Your task to perform on an android device: Open sound settings Image 0: 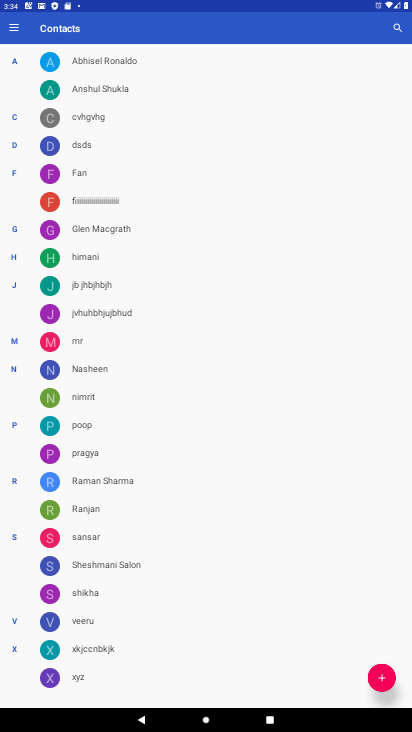
Step 0: press home button
Your task to perform on an android device: Open sound settings Image 1: 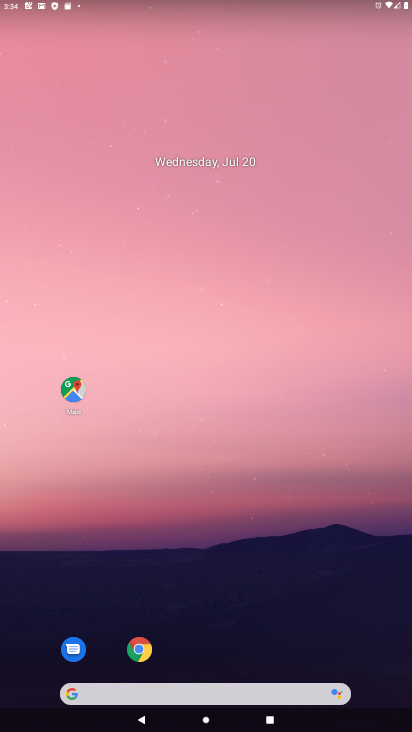
Step 1: drag from (250, 694) to (275, 88)
Your task to perform on an android device: Open sound settings Image 2: 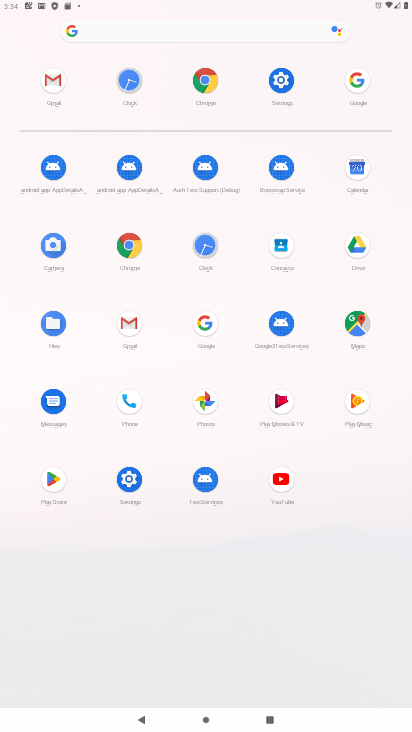
Step 2: click (282, 79)
Your task to perform on an android device: Open sound settings Image 3: 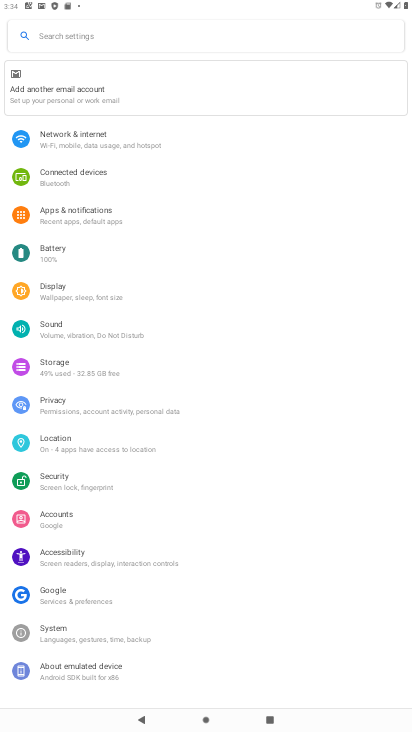
Step 3: click (51, 330)
Your task to perform on an android device: Open sound settings Image 4: 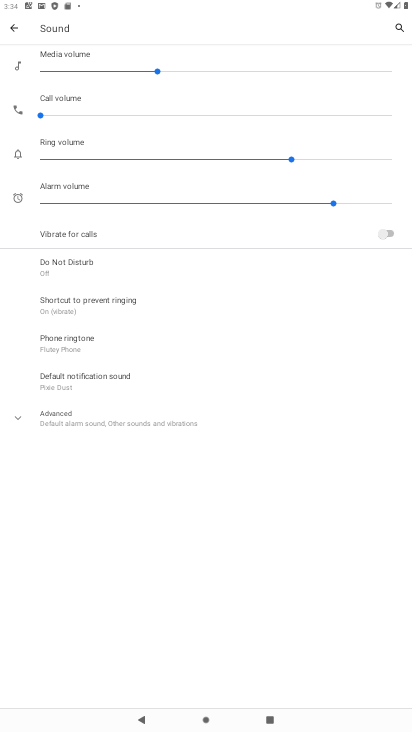
Step 4: task complete